Your task to perform on an android device: Go to Yahoo.com Image 0: 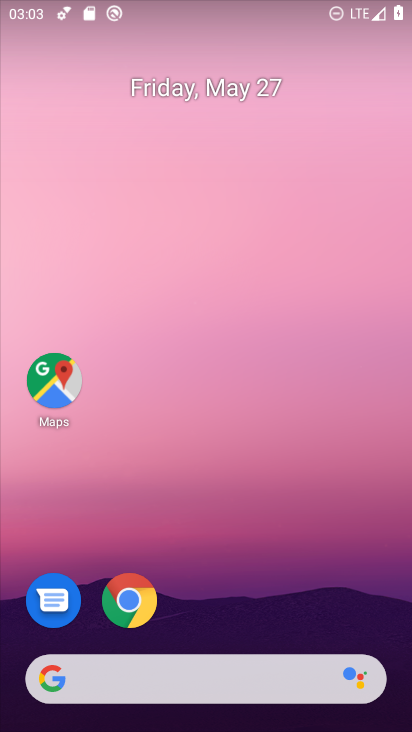
Step 0: click (119, 600)
Your task to perform on an android device: Go to Yahoo.com Image 1: 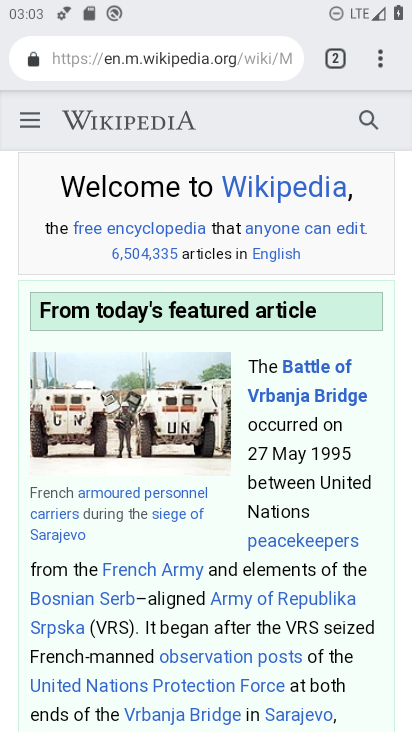
Step 1: click (378, 64)
Your task to perform on an android device: Go to Yahoo.com Image 2: 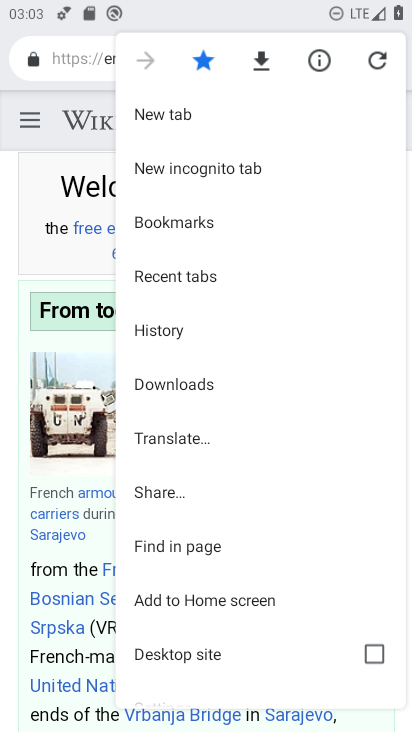
Step 2: click (166, 112)
Your task to perform on an android device: Go to Yahoo.com Image 3: 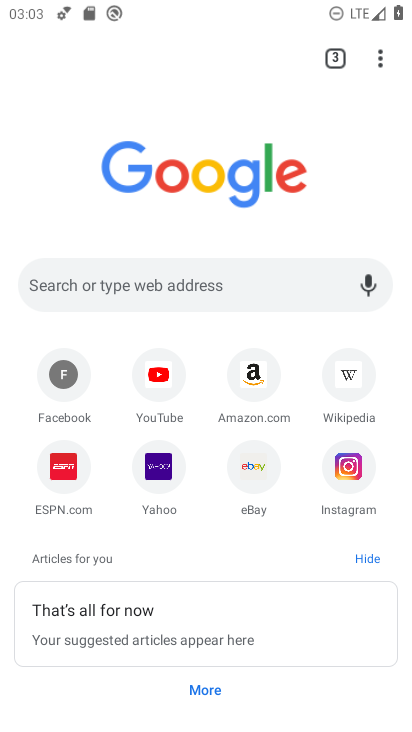
Step 3: click (162, 471)
Your task to perform on an android device: Go to Yahoo.com Image 4: 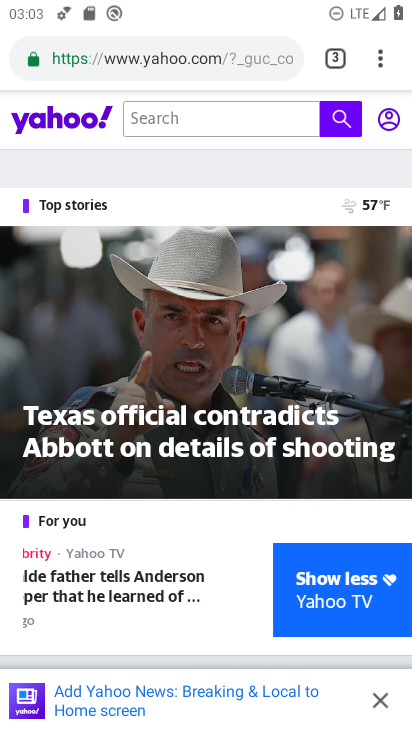
Step 4: task complete